Your task to perform on an android device: check google app version Image 0: 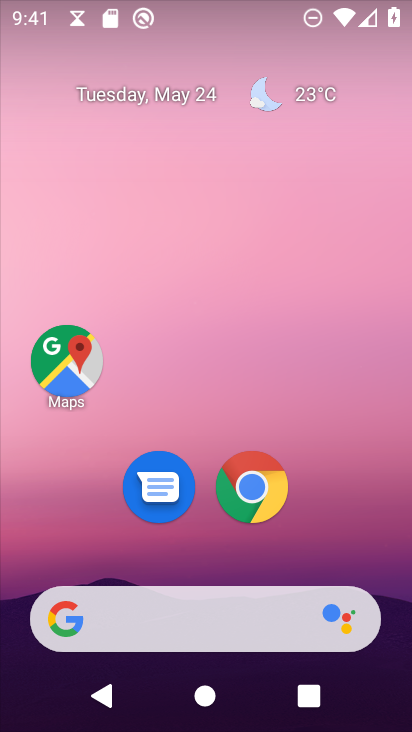
Step 0: drag from (34, 668) to (231, 190)
Your task to perform on an android device: check google app version Image 1: 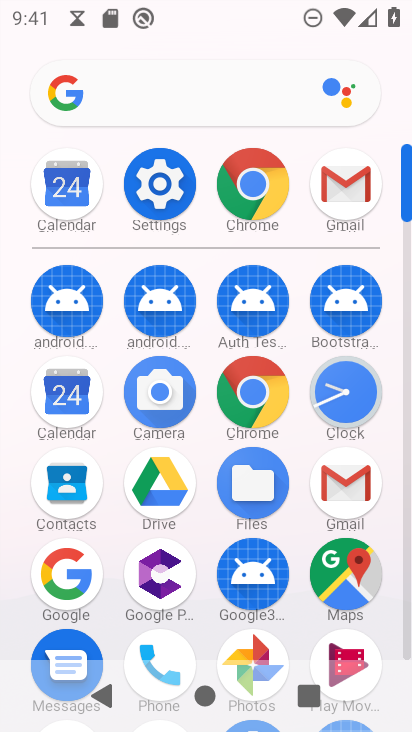
Step 1: click (265, 585)
Your task to perform on an android device: check google app version Image 2: 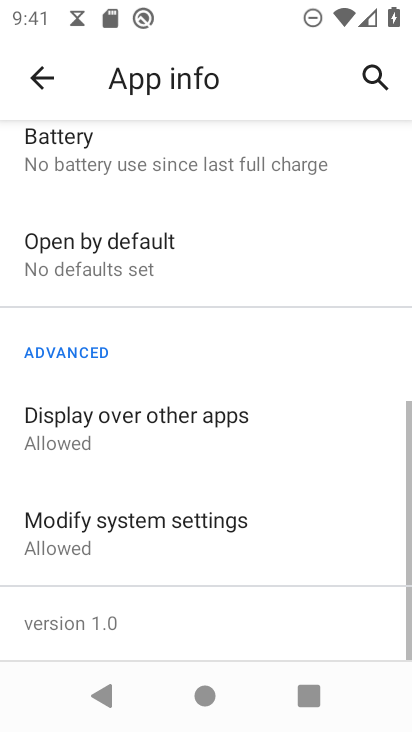
Step 2: click (114, 640)
Your task to perform on an android device: check google app version Image 3: 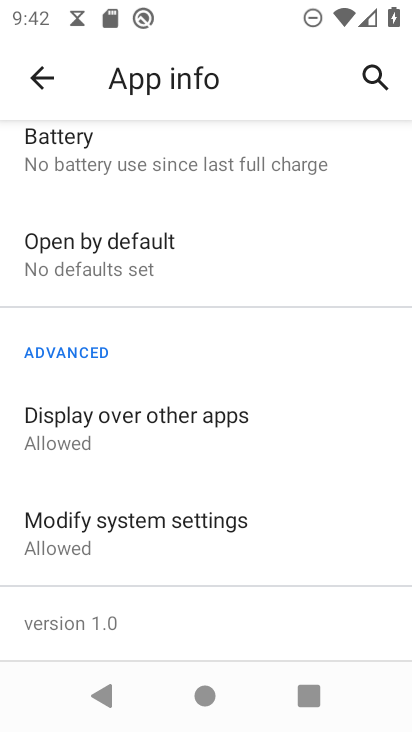
Step 3: task complete